Your task to perform on an android device: Open ESPN.com Image 0: 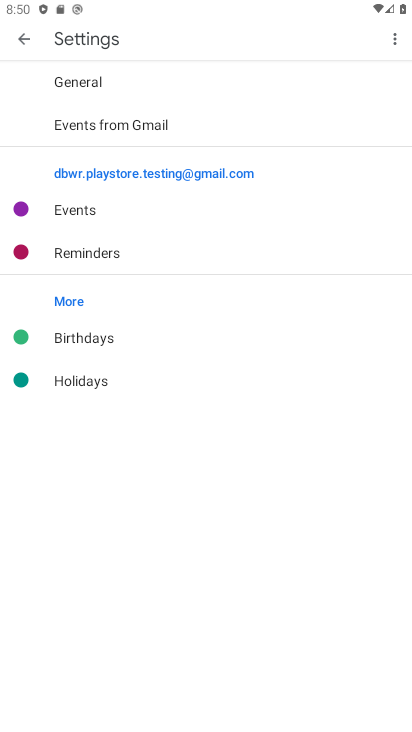
Step 0: press home button
Your task to perform on an android device: Open ESPN.com Image 1: 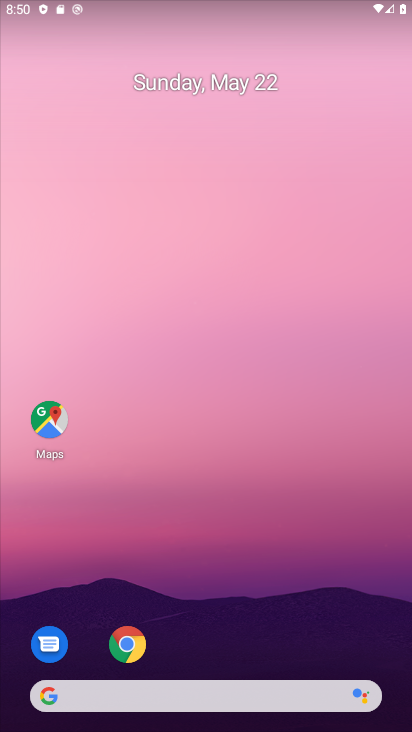
Step 1: click (138, 650)
Your task to perform on an android device: Open ESPN.com Image 2: 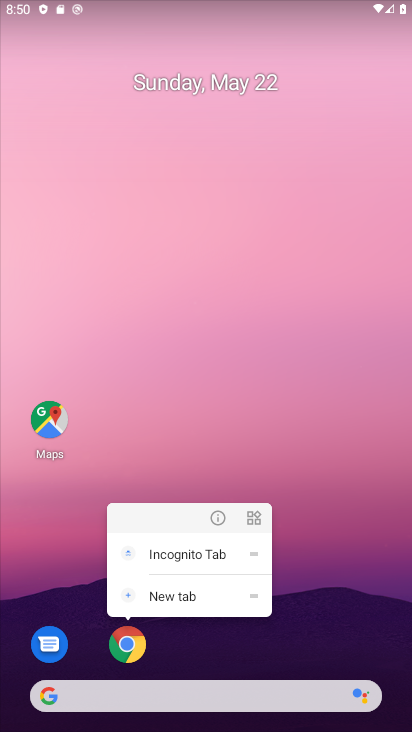
Step 2: click (132, 633)
Your task to perform on an android device: Open ESPN.com Image 3: 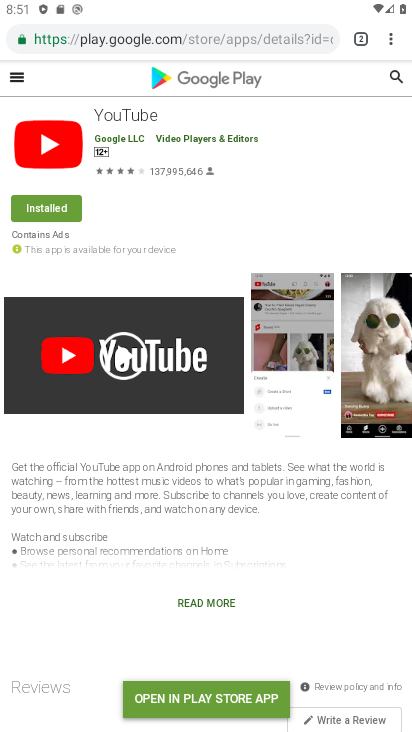
Step 3: click (149, 40)
Your task to perform on an android device: Open ESPN.com Image 4: 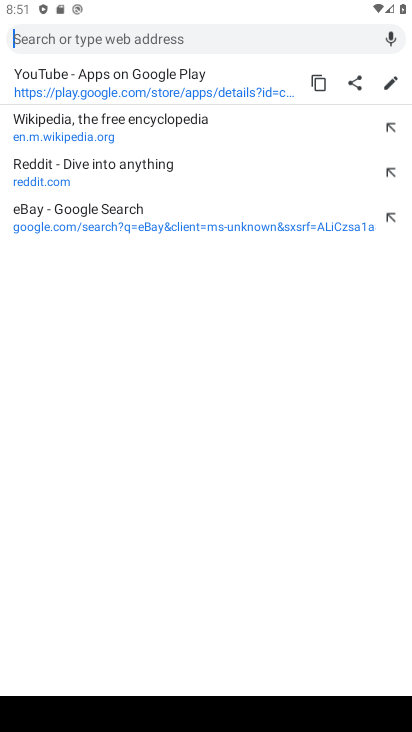
Step 4: type "espn.com"
Your task to perform on an android device: Open ESPN.com Image 5: 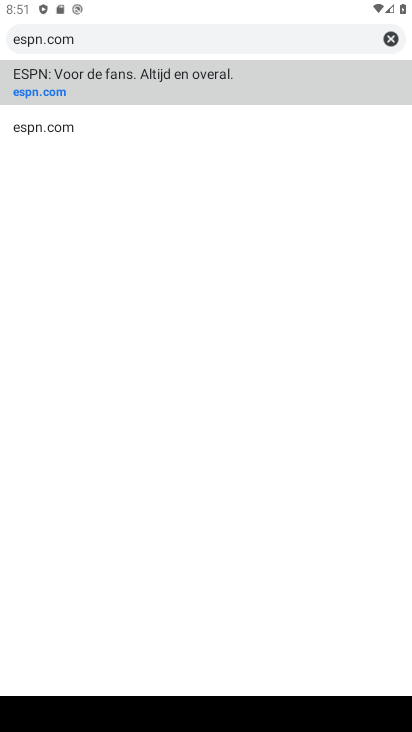
Step 5: click (107, 91)
Your task to perform on an android device: Open ESPN.com Image 6: 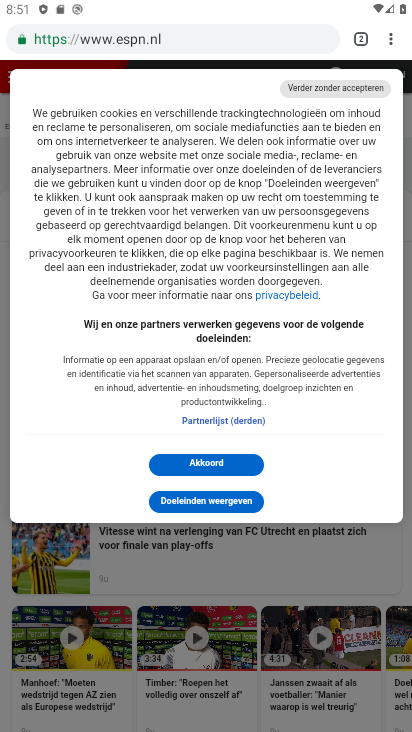
Step 6: click (216, 452)
Your task to perform on an android device: Open ESPN.com Image 7: 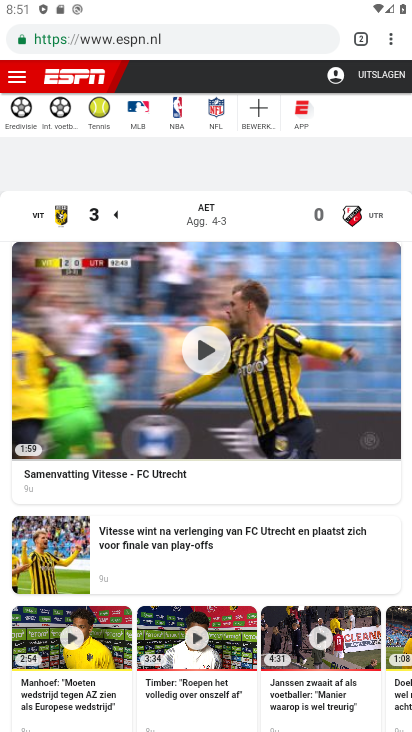
Step 7: task complete